Your task to perform on an android device: Show me recent news Image 0: 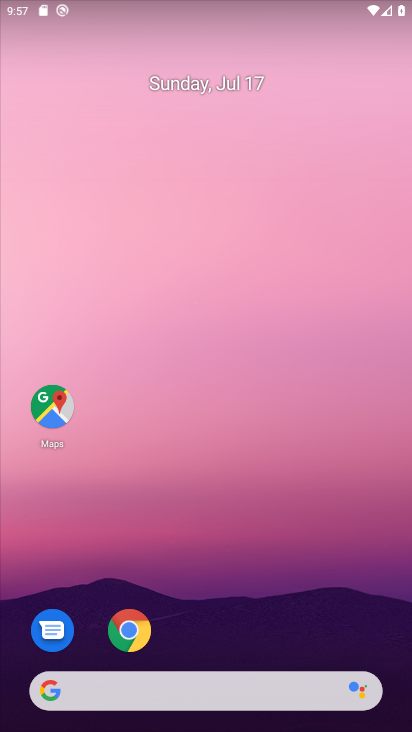
Step 0: drag from (192, 643) to (245, 125)
Your task to perform on an android device: Show me recent news Image 1: 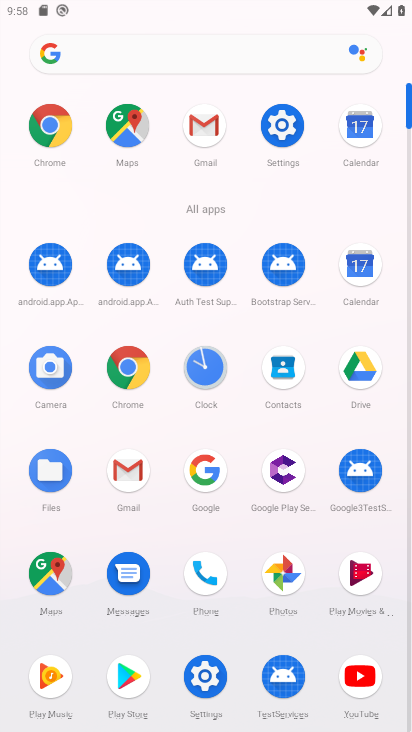
Step 1: click (227, 56)
Your task to perform on an android device: Show me recent news Image 2: 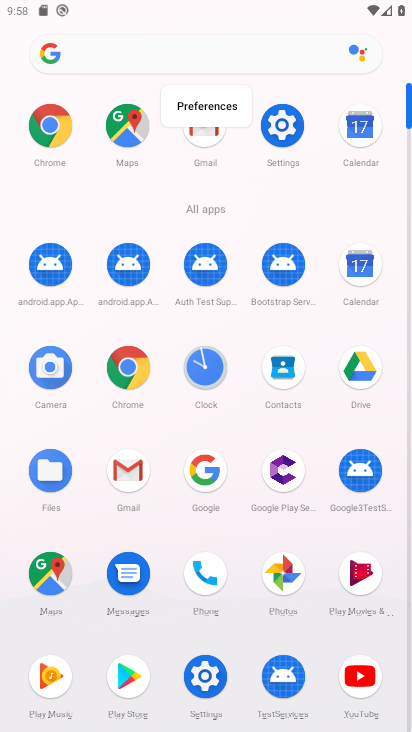
Step 2: click (148, 47)
Your task to perform on an android device: Show me recent news Image 3: 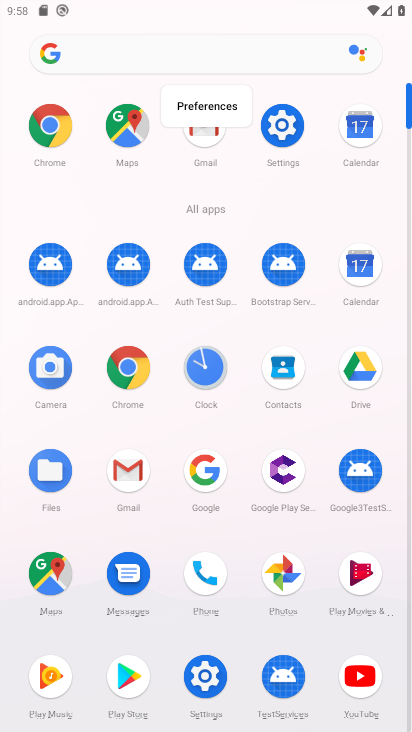
Step 3: click (152, 64)
Your task to perform on an android device: Show me recent news Image 4: 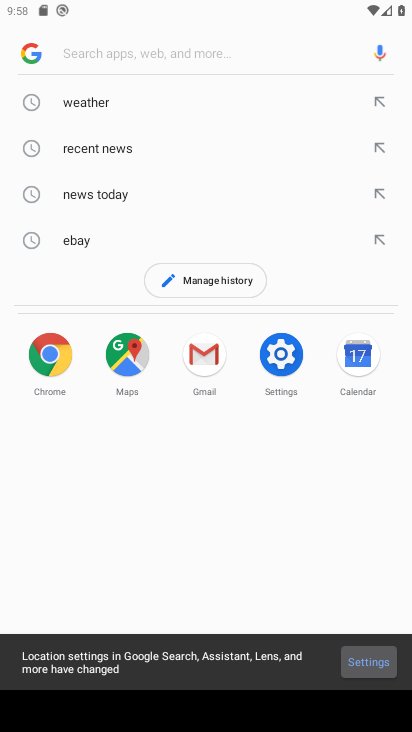
Step 4: click (110, 144)
Your task to perform on an android device: Show me recent news Image 5: 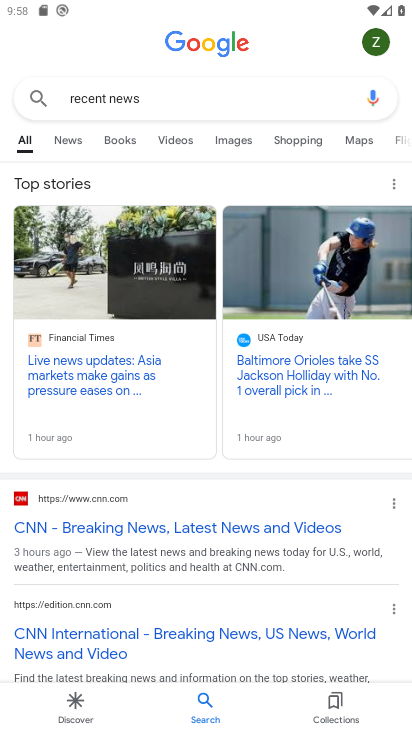
Step 5: task complete